Your task to perform on an android device: What's on my calendar tomorrow? Image 0: 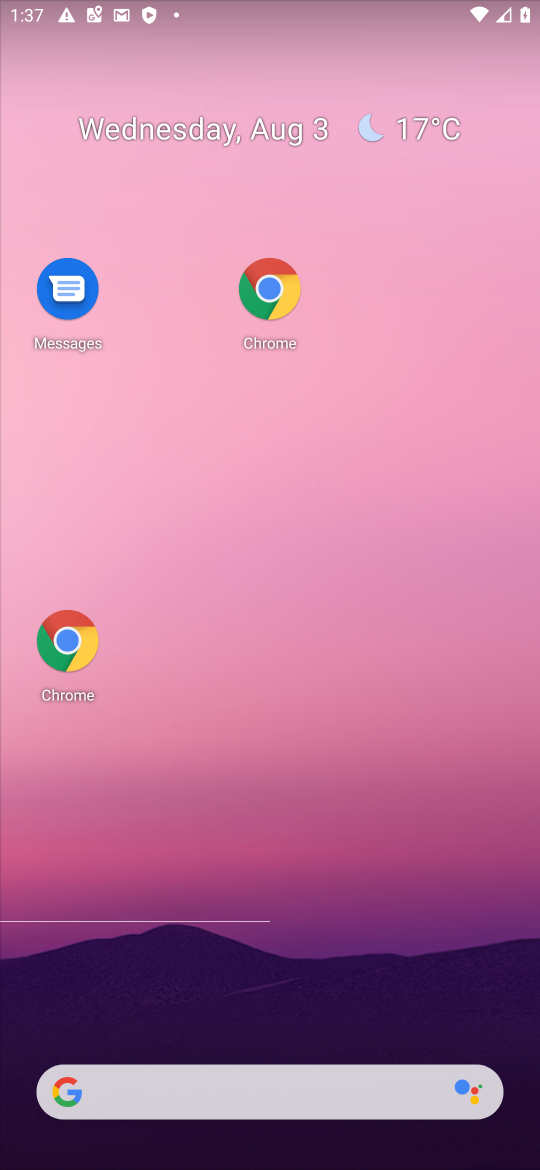
Step 0: drag from (359, 1014) to (320, 208)
Your task to perform on an android device: What's on my calendar tomorrow? Image 1: 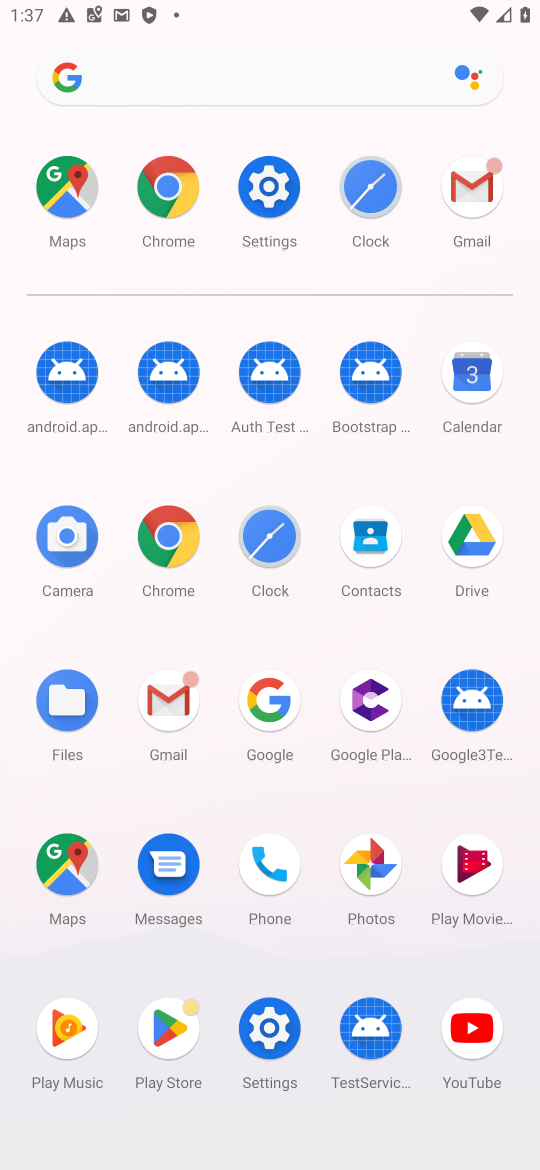
Step 1: click (459, 424)
Your task to perform on an android device: What's on my calendar tomorrow? Image 2: 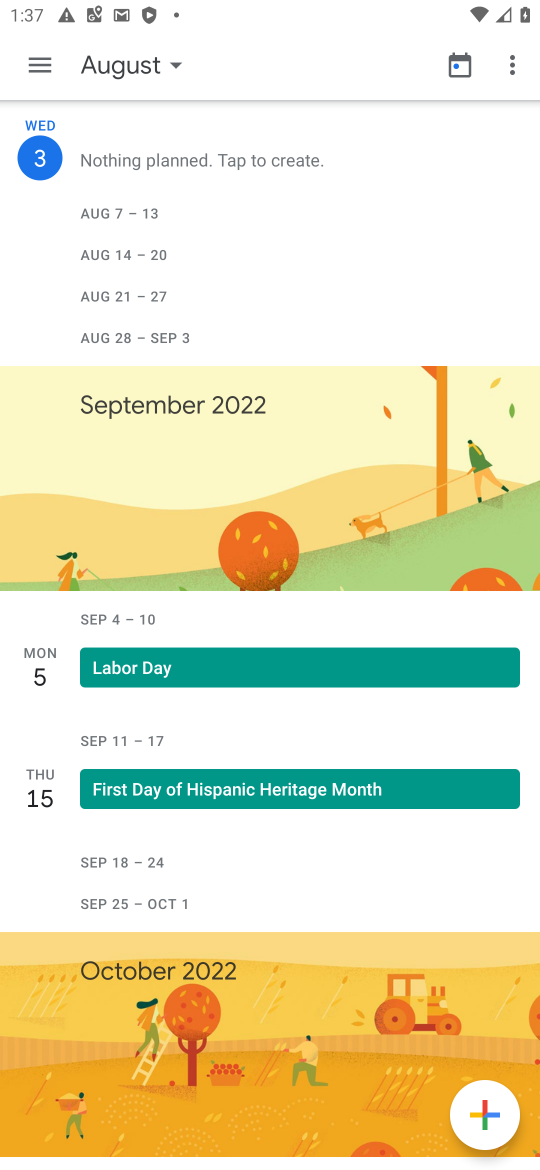
Step 2: task complete